Your task to perform on an android device: set an alarm Image 0: 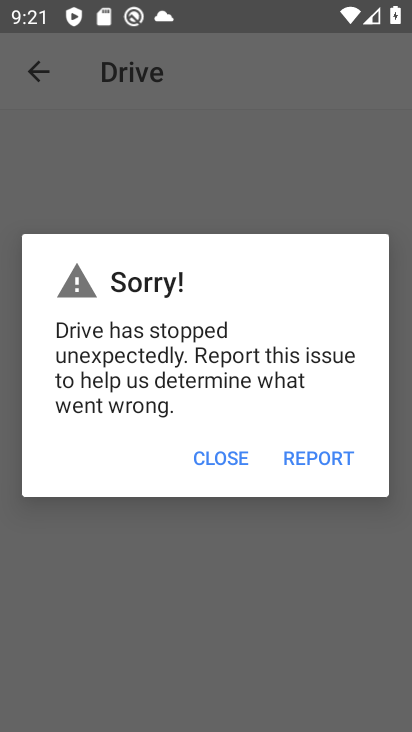
Step 0: press home button
Your task to perform on an android device: set an alarm Image 1: 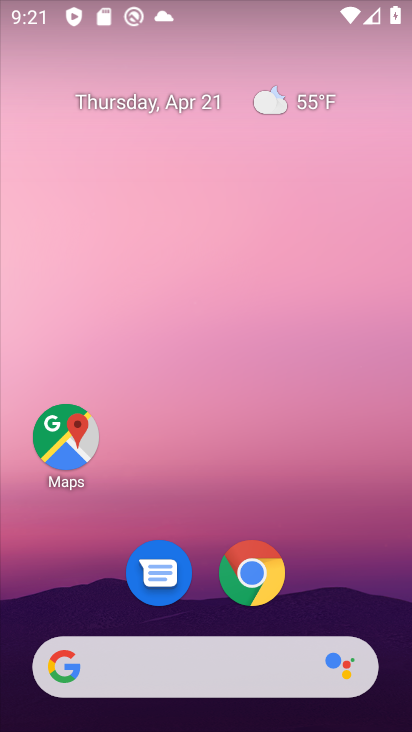
Step 1: drag from (303, 605) to (370, 165)
Your task to perform on an android device: set an alarm Image 2: 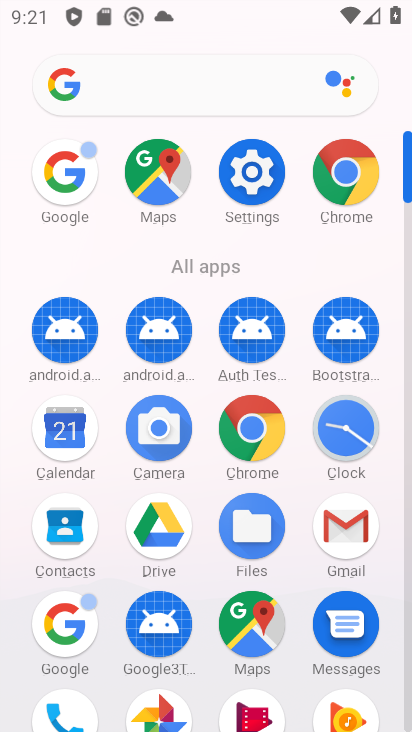
Step 2: click (350, 431)
Your task to perform on an android device: set an alarm Image 3: 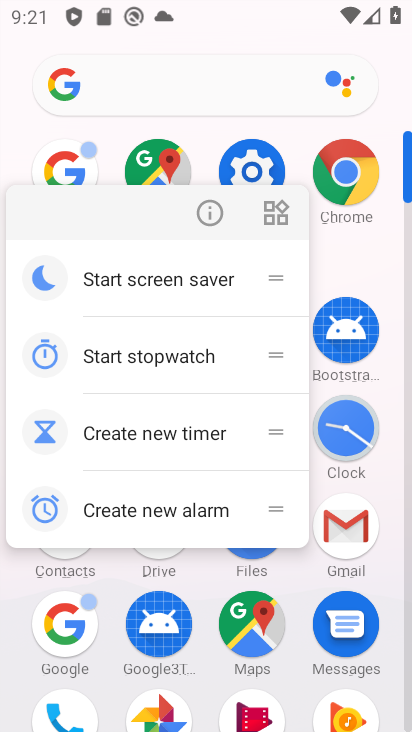
Step 3: click (351, 428)
Your task to perform on an android device: set an alarm Image 4: 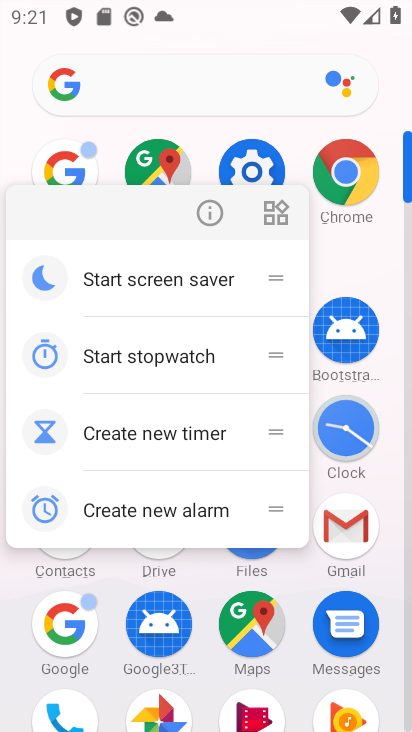
Step 4: click (342, 434)
Your task to perform on an android device: set an alarm Image 5: 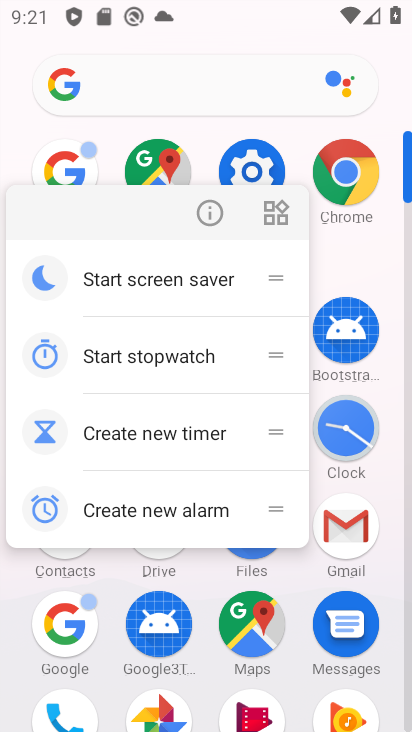
Step 5: click (340, 440)
Your task to perform on an android device: set an alarm Image 6: 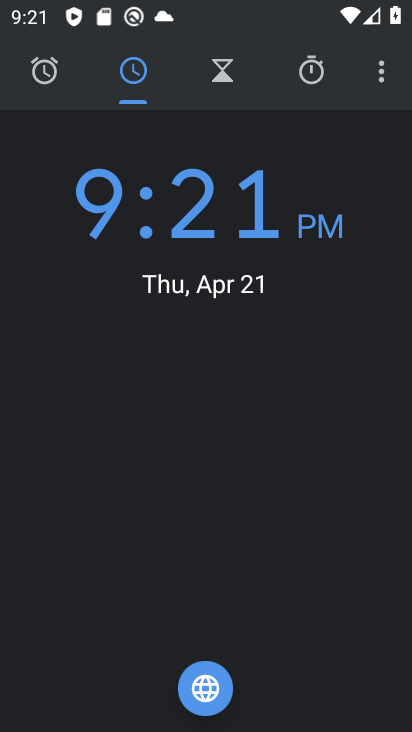
Step 6: click (378, 60)
Your task to perform on an android device: set an alarm Image 7: 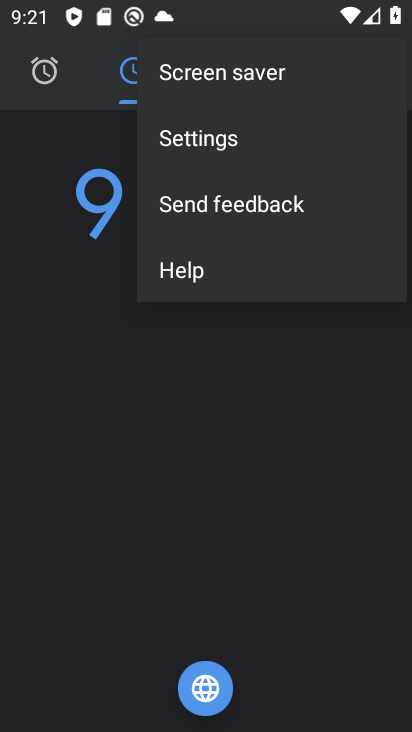
Step 7: click (47, 95)
Your task to perform on an android device: set an alarm Image 8: 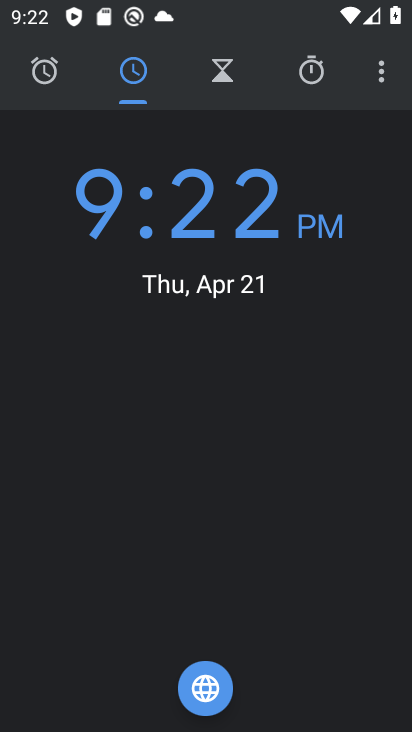
Step 8: click (28, 82)
Your task to perform on an android device: set an alarm Image 9: 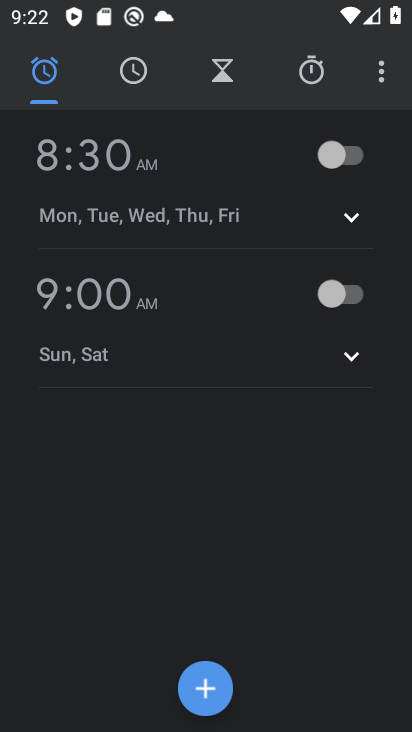
Step 9: click (346, 154)
Your task to perform on an android device: set an alarm Image 10: 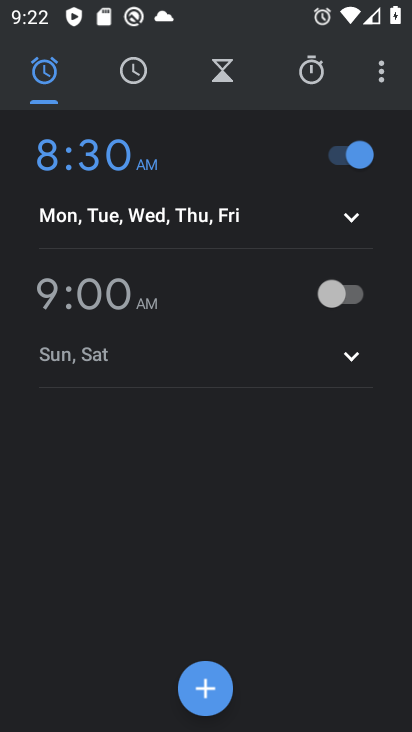
Step 10: task complete